Your task to perform on an android device: Open internet settings Image 0: 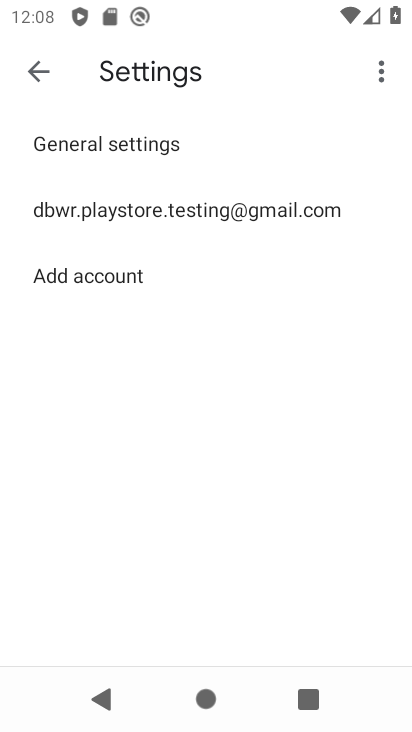
Step 0: press home button
Your task to perform on an android device: Open internet settings Image 1: 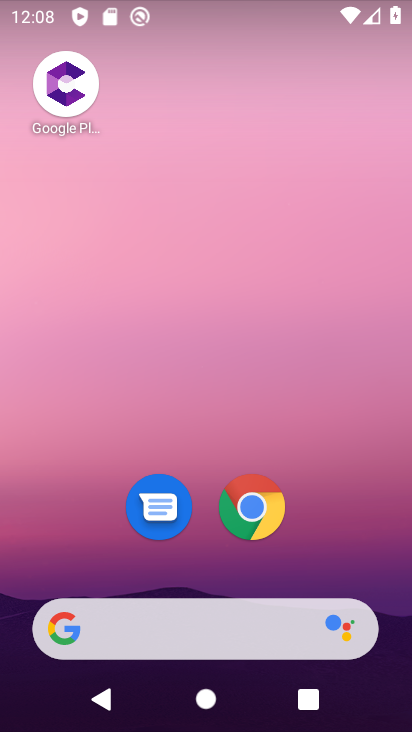
Step 1: drag from (214, 495) to (237, 33)
Your task to perform on an android device: Open internet settings Image 2: 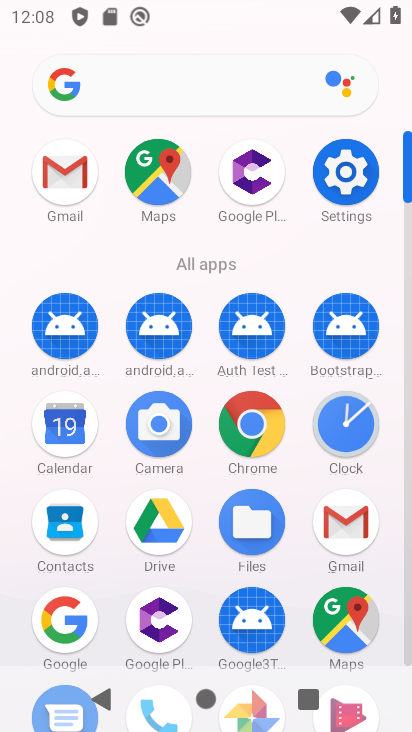
Step 2: click (348, 169)
Your task to perform on an android device: Open internet settings Image 3: 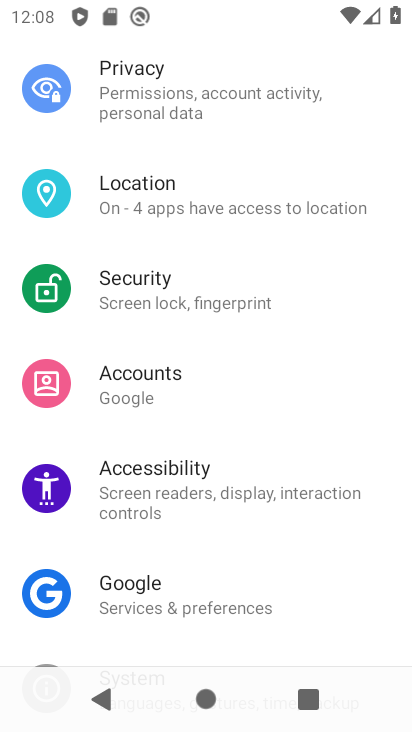
Step 3: drag from (258, 236) to (233, 622)
Your task to perform on an android device: Open internet settings Image 4: 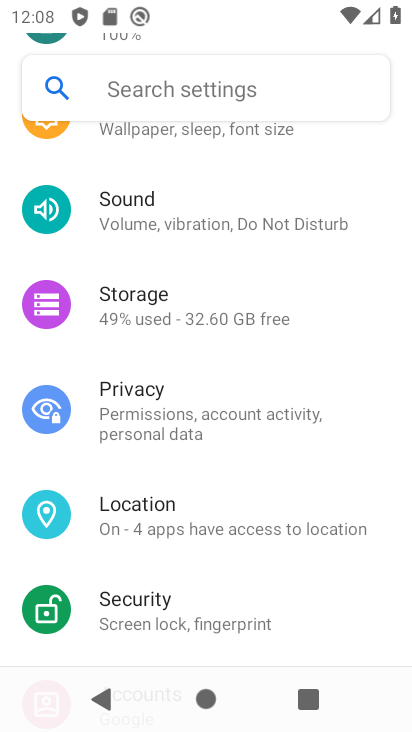
Step 4: drag from (233, 293) to (206, 588)
Your task to perform on an android device: Open internet settings Image 5: 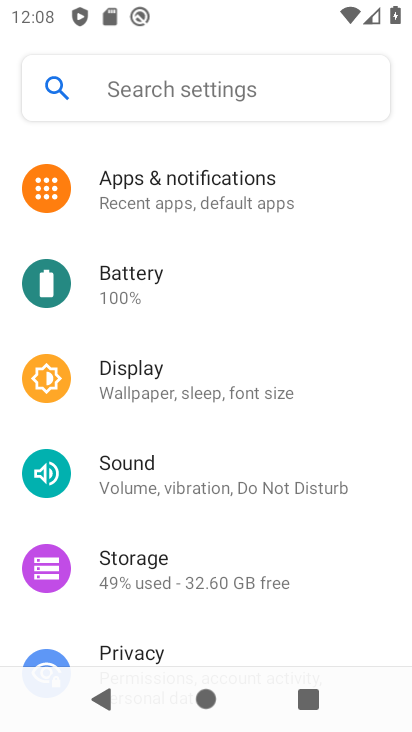
Step 5: drag from (204, 196) to (177, 639)
Your task to perform on an android device: Open internet settings Image 6: 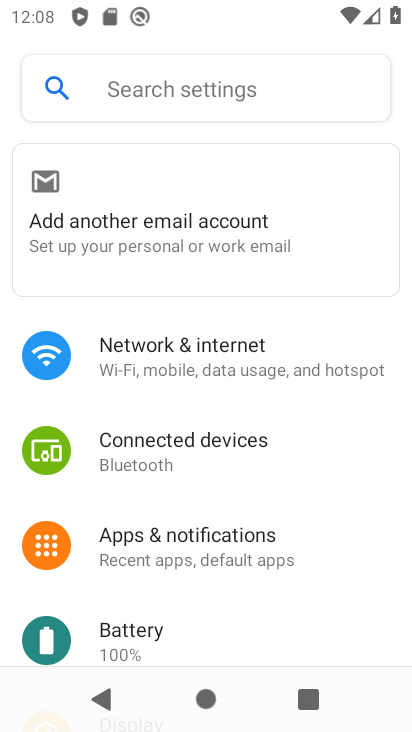
Step 6: click (192, 361)
Your task to perform on an android device: Open internet settings Image 7: 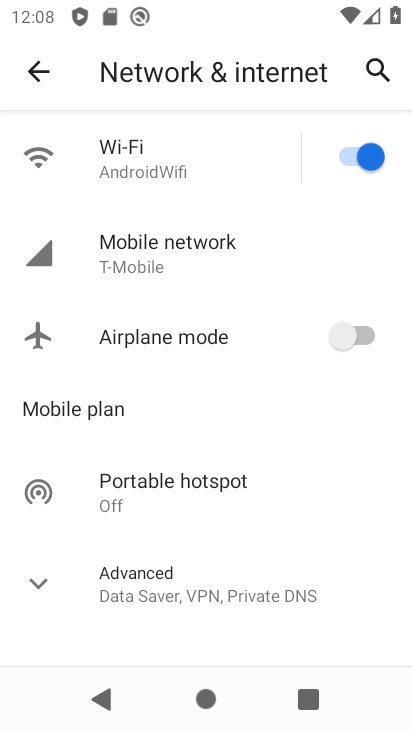
Step 7: task complete